Your task to perform on an android device: turn vacation reply on in the gmail app Image 0: 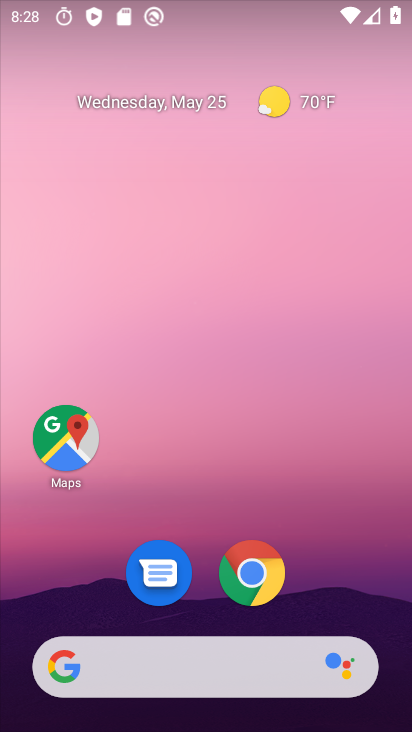
Step 0: drag from (386, 617) to (332, 350)
Your task to perform on an android device: turn vacation reply on in the gmail app Image 1: 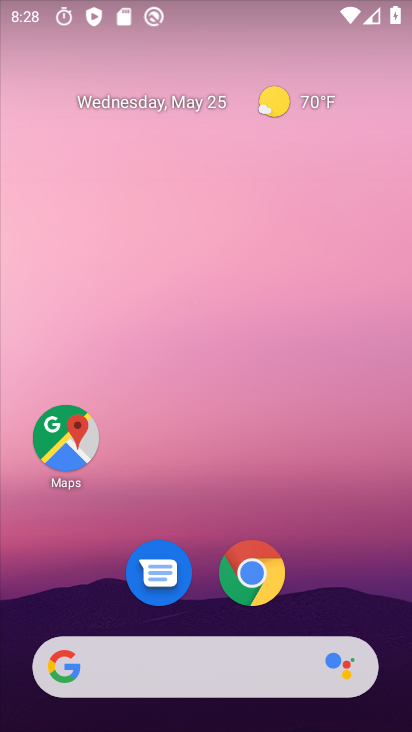
Step 1: drag from (402, 624) to (301, 195)
Your task to perform on an android device: turn vacation reply on in the gmail app Image 2: 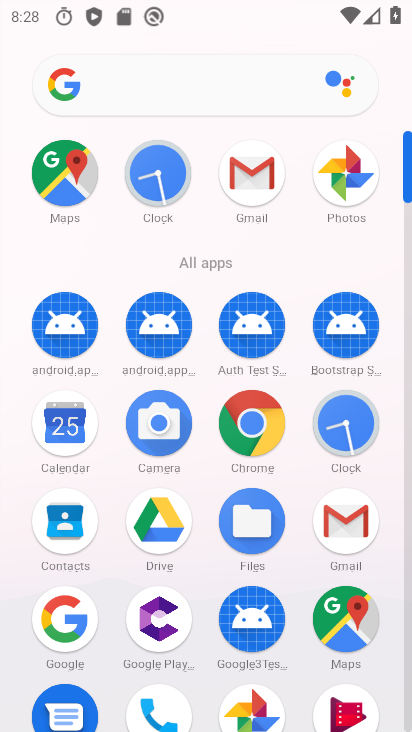
Step 2: click (251, 174)
Your task to perform on an android device: turn vacation reply on in the gmail app Image 3: 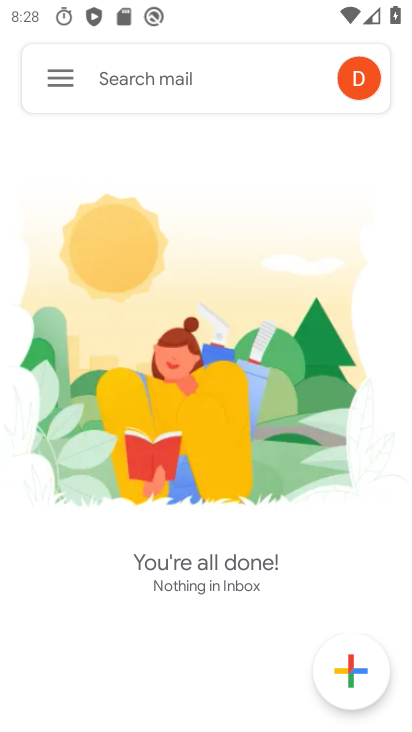
Step 3: click (59, 78)
Your task to perform on an android device: turn vacation reply on in the gmail app Image 4: 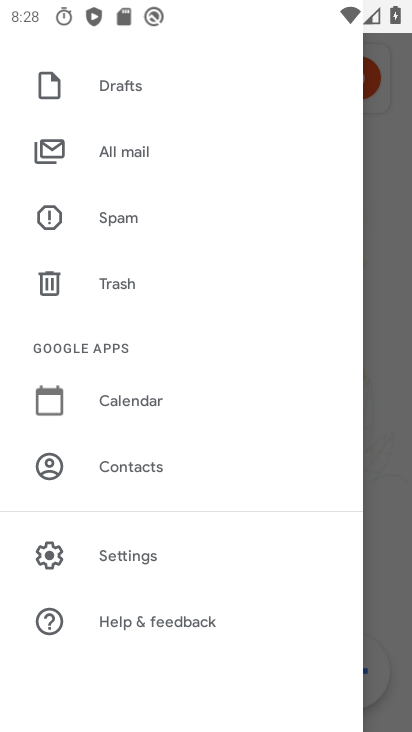
Step 4: click (139, 551)
Your task to perform on an android device: turn vacation reply on in the gmail app Image 5: 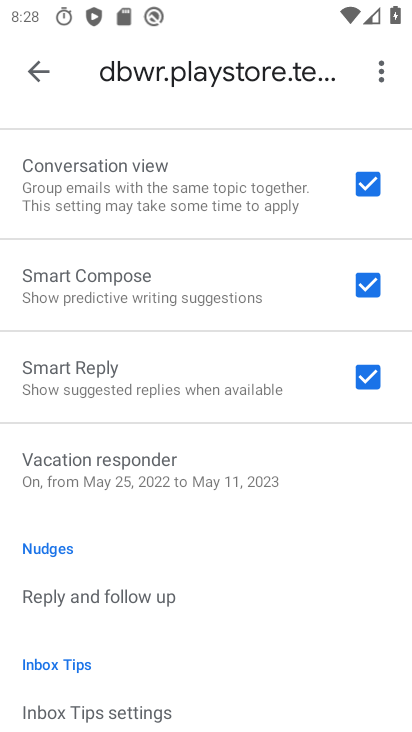
Step 5: click (147, 467)
Your task to perform on an android device: turn vacation reply on in the gmail app Image 6: 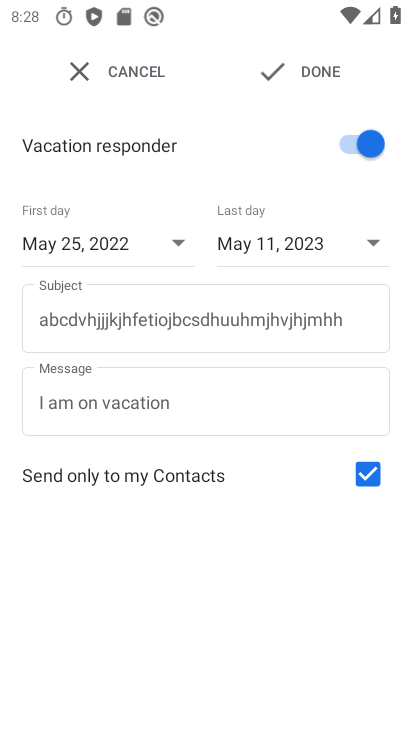
Step 6: click (381, 313)
Your task to perform on an android device: turn vacation reply on in the gmail app Image 7: 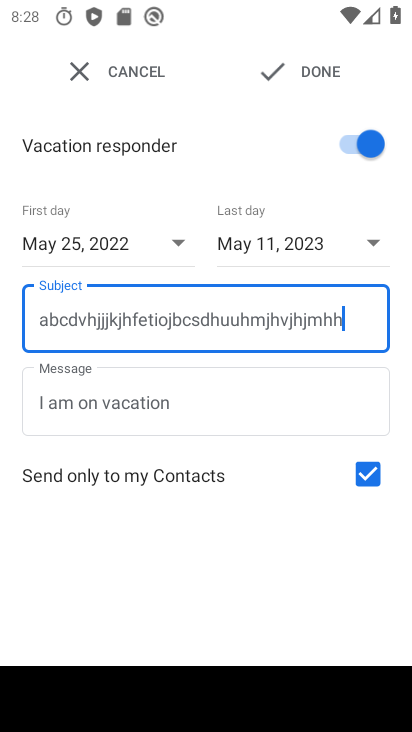
Step 7: type "kj"
Your task to perform on an android device: turn vacation reply on in the gmail app Image 8: 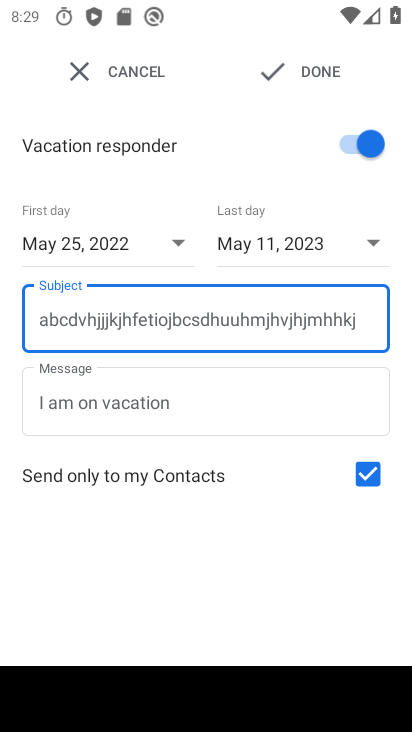
Step 8: click (312, 73)
Your task to perform on an android device: turn vacation reply on in the gmail app Image 9: 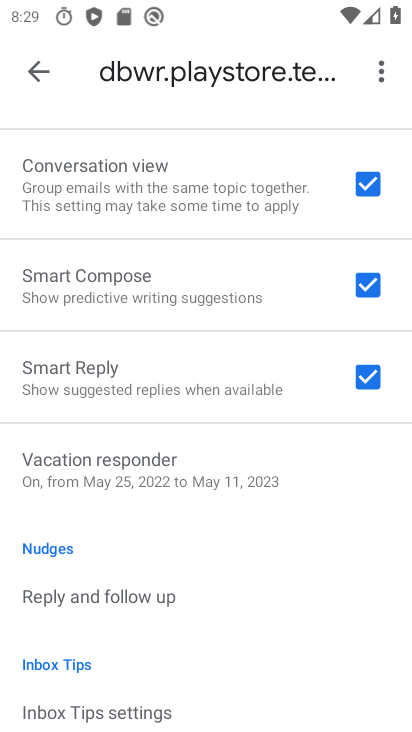
Step 9: task complete